Your task to perform on an android device: What's a good restaurant in Dallas? Image 0: 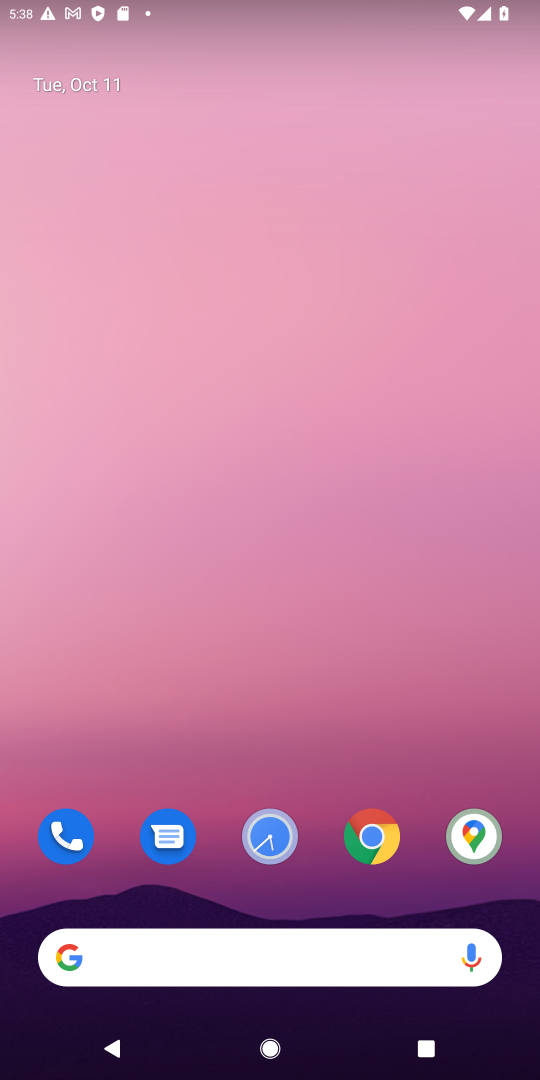
Step 0: click (369, 828)
Your task to perform on an android device: What's a good restaurant in Dallas? Image 1: 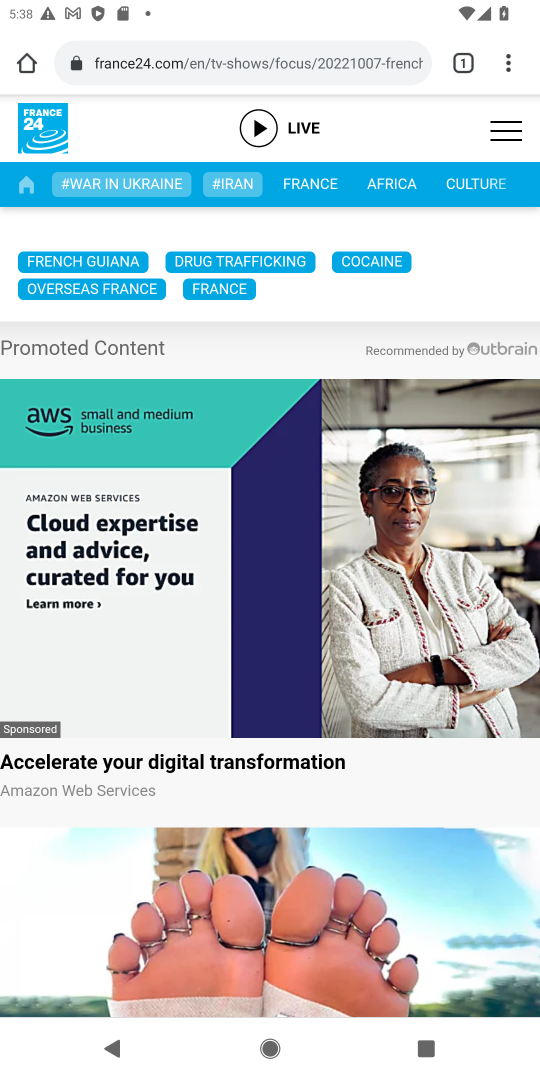
Step 1: click (213, 44)
Your task to perform on an android device: What's a good restaurant in Dallas? Image 2: 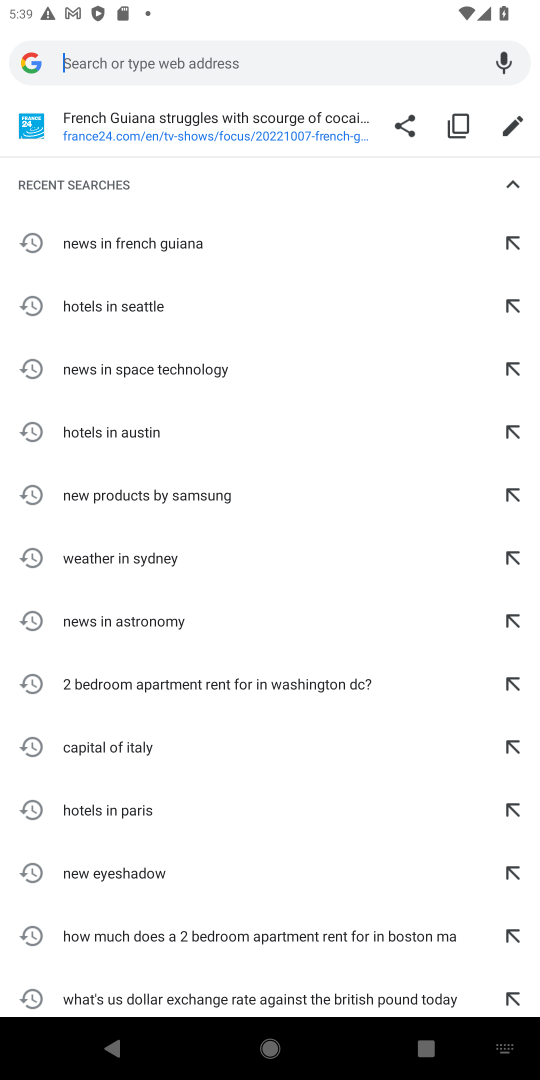
Step 2: type "good restaurants in Dallas"
Your task to perform on an android device: What's a good restaurant in Dallas? Image 3: 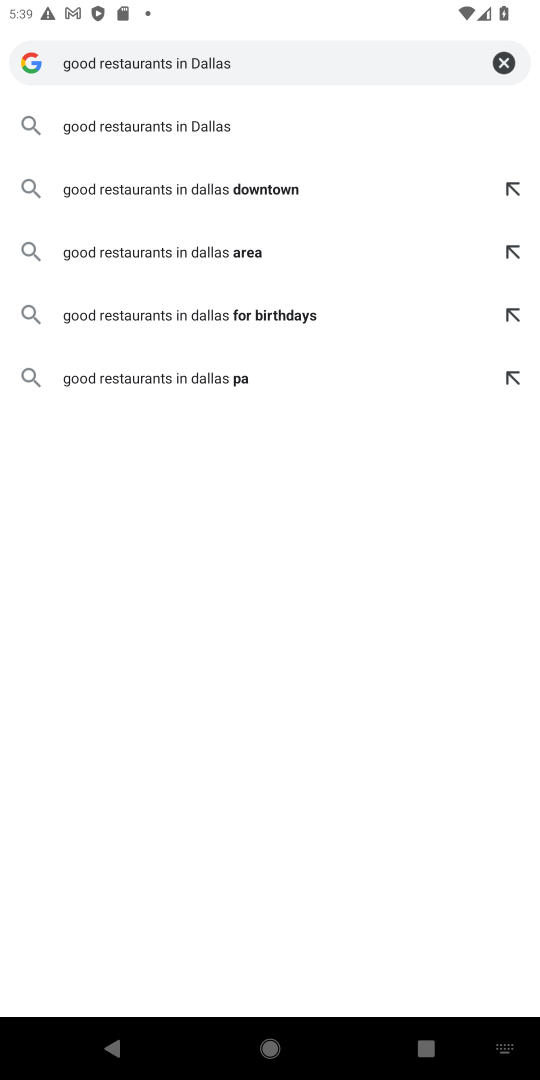
Step 3: click (124, 115)
Your task to perform on an android device: What's a good restaurant in Dallas? Image 4: 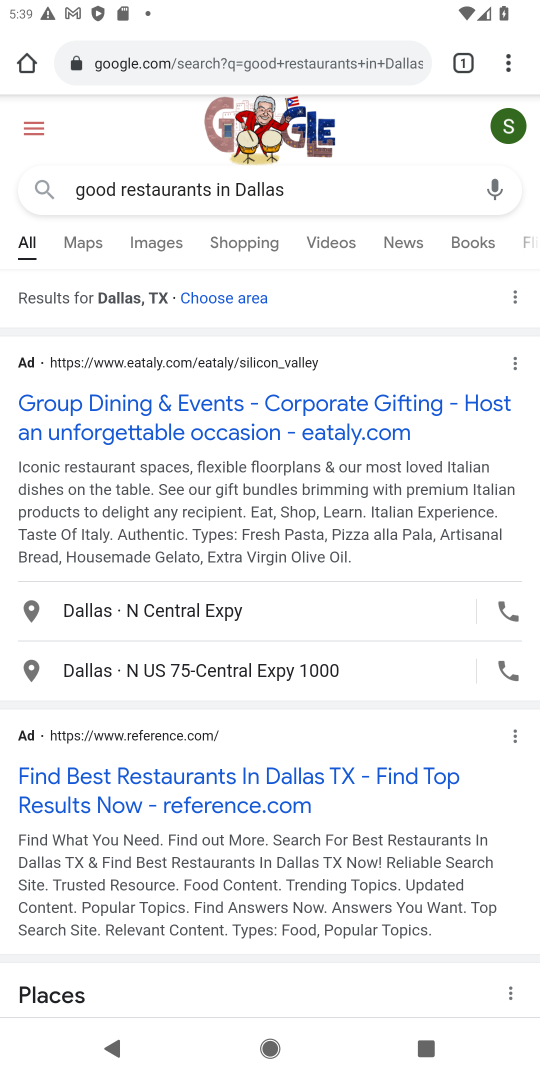
Step 4: click (125, 774)
Your task to perform on an android device: What's a good restaurant in Dallas? Image 5: 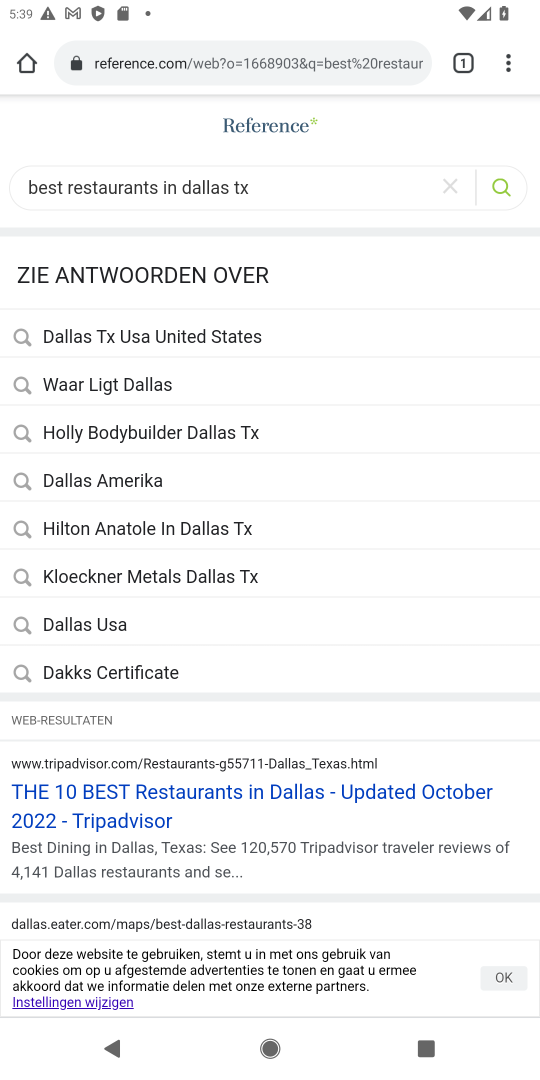
Step 5: drag from (304, 695) to (305, 235)
Your task to perform on an android device: What's a good restaurant in Dallas? Image 6: 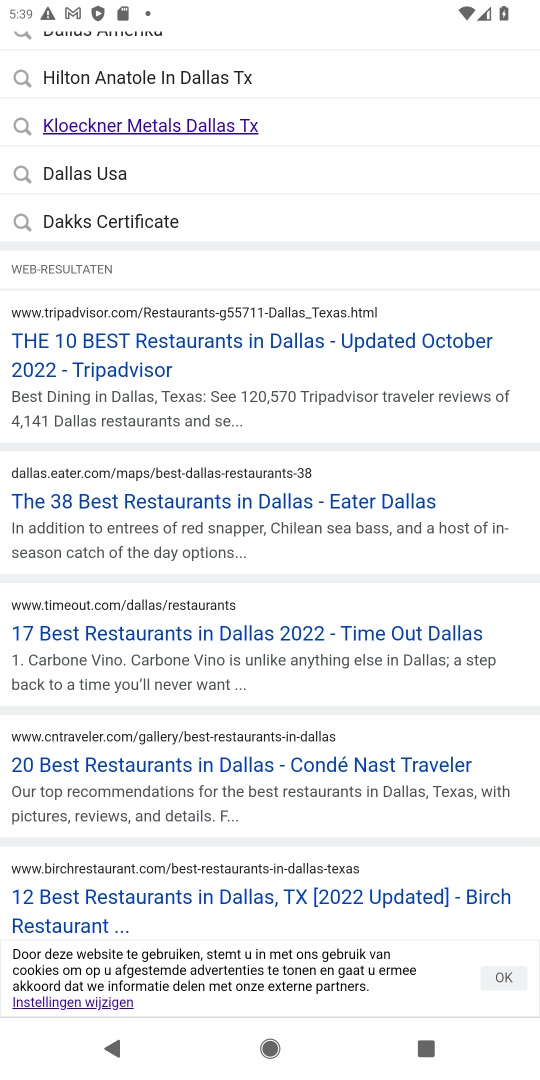
Step 6: click (144, 344)
Your task to perform on an android device: What's a good restaurant in Dallas? Image 7: 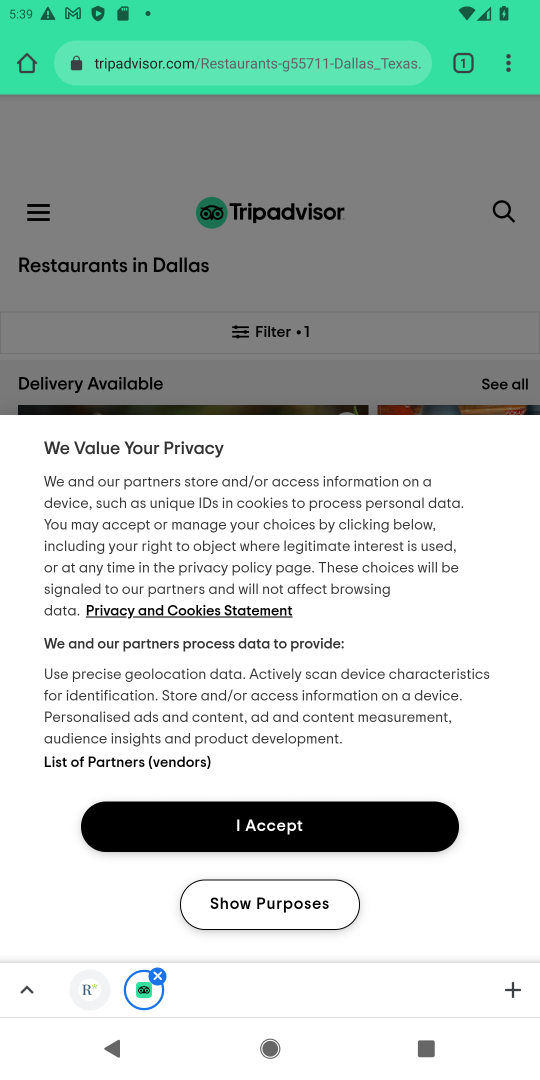
Step 7: click (257, 815)
Your task to perform on an android device: What's a good restaurant in Dallas? Image 8: 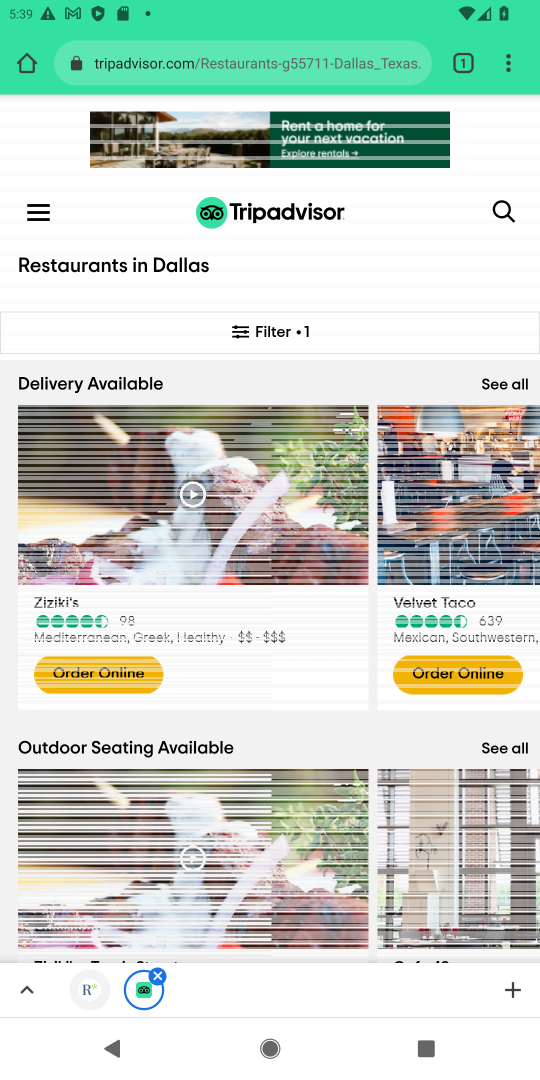
Step 8: task complete